Your task to perform on an android device: check android version Image 0: 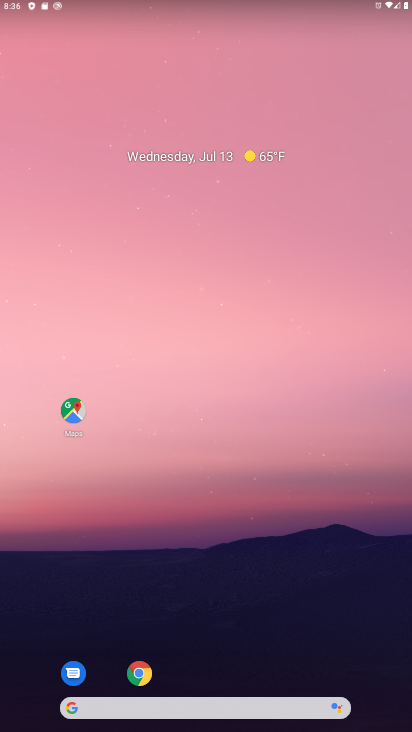
Step 0: drag from (195, 707) to (248, 336)
Your task to perform on an android device: check android version Image 1: 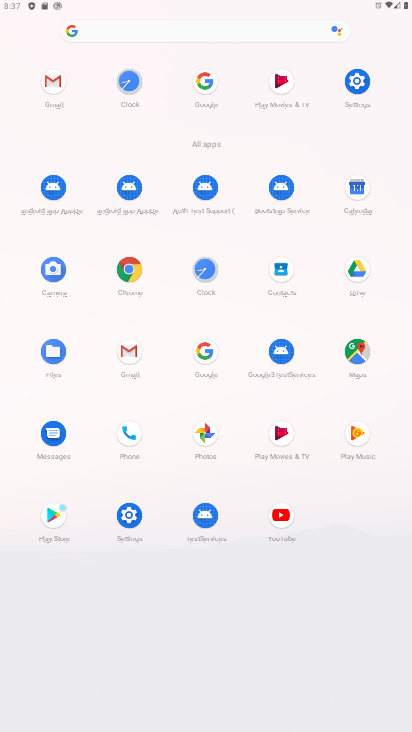
Step 1: click (129, 514)
Your task to perform on an android device: check android version Image 2: 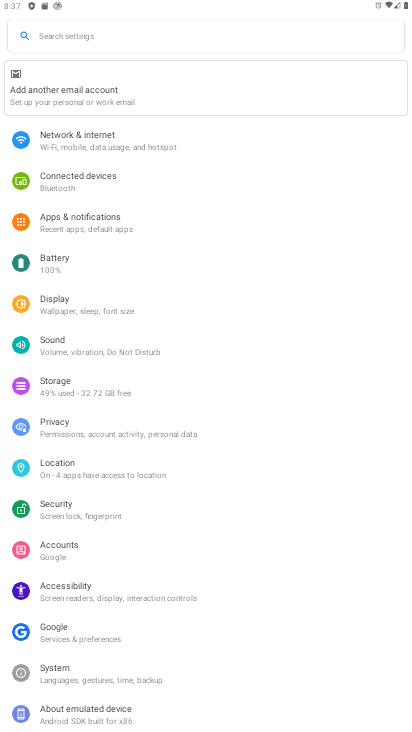
Step 2: drag from (89, 537) to (165, 431)
Your task to perform on an android device: check android version Image 3: 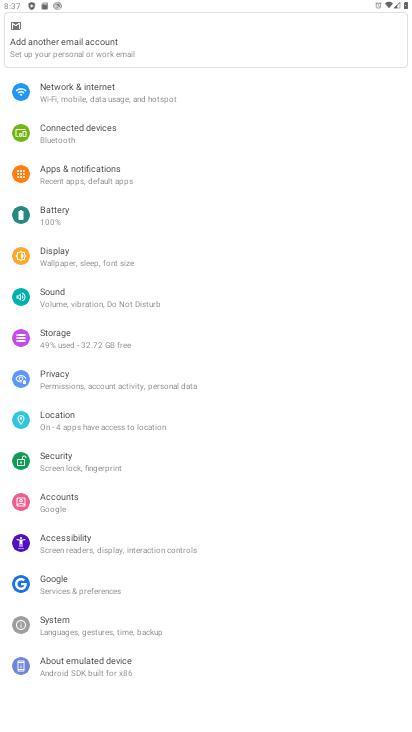
Step 3: click (84, 662)
Your task to perform on an android device: check android version Image 4: 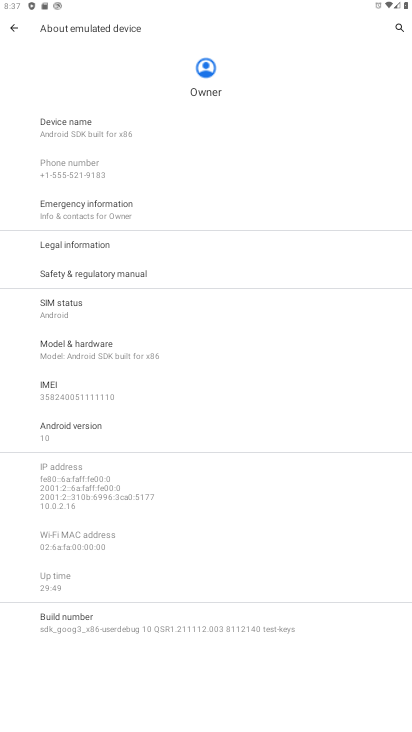
Step 4: click (65, 427)
Your task to perform on an android device: check android version Image 5: 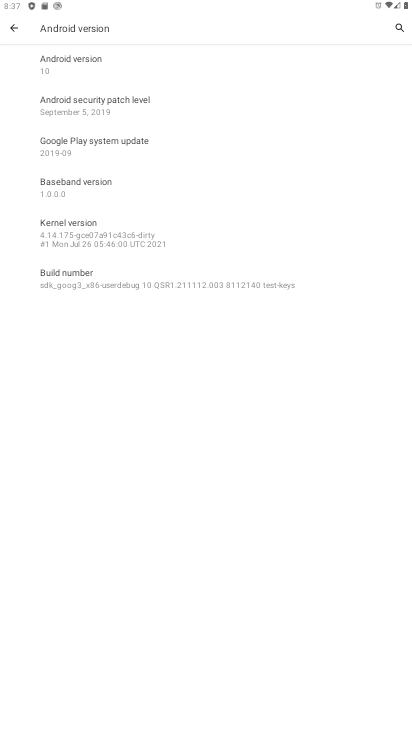
Step 5: task complete